Your task to perform on an android device: open a bookmark in the chrome app Image 0: 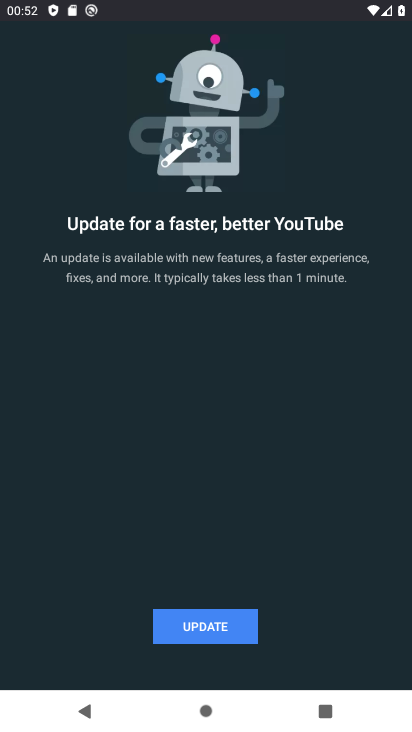
Step 0: press home button
Your task to perform on an android device: open a bookmark in the chrome app Image 1: 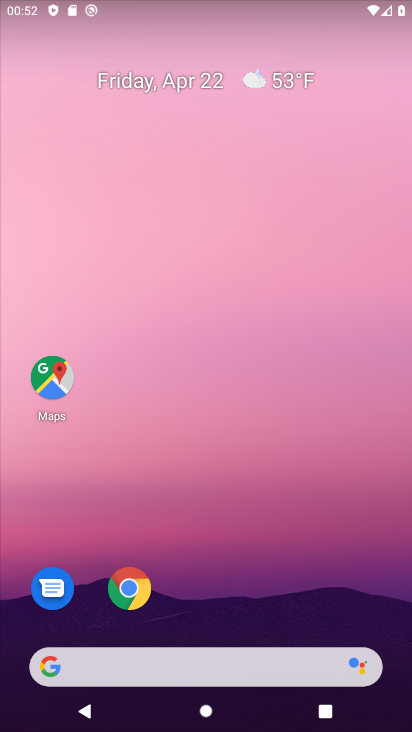
Step 1: click (134, 593)
Your task to perform on an android device: open a bookmark in the chrome app Image 2: 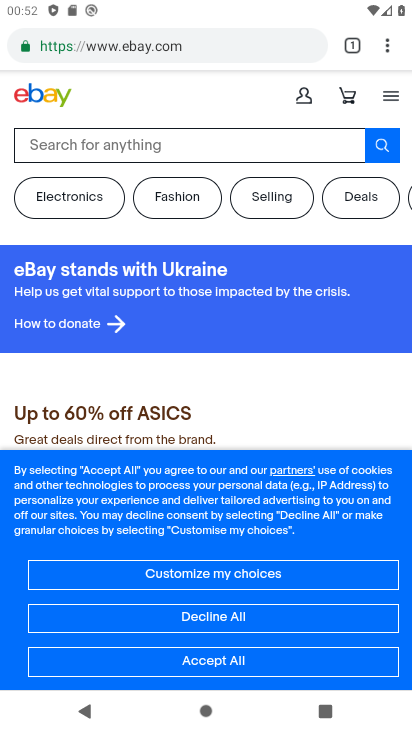
Step 2: task complete